Your task to perform on an android device: open app "Facebook Lite" (install if not already installed), go to login, and select forgot password Image 0: 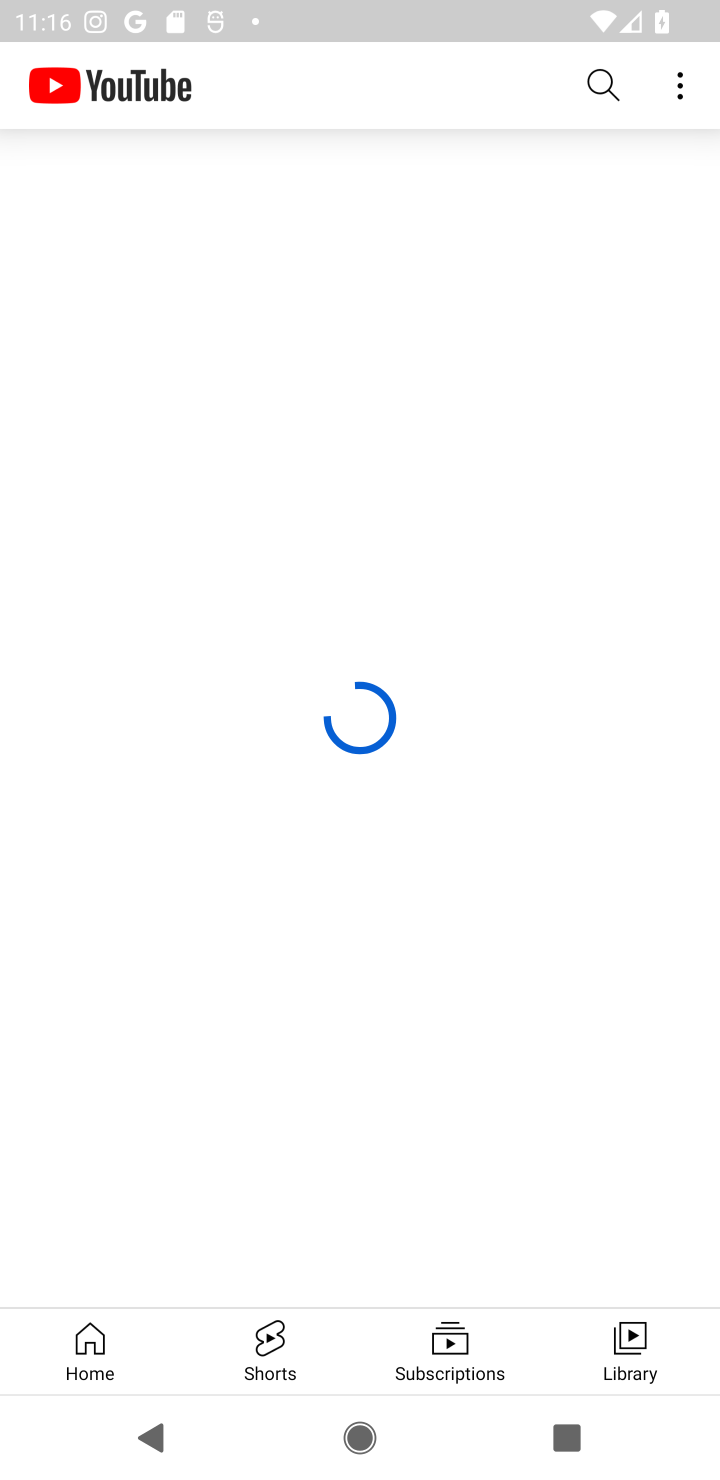
Step 0: press back button
Your task to perform on an android device: open app "Facebook Lite" (install if not already installed), go to login, and select forgot password Image 1: 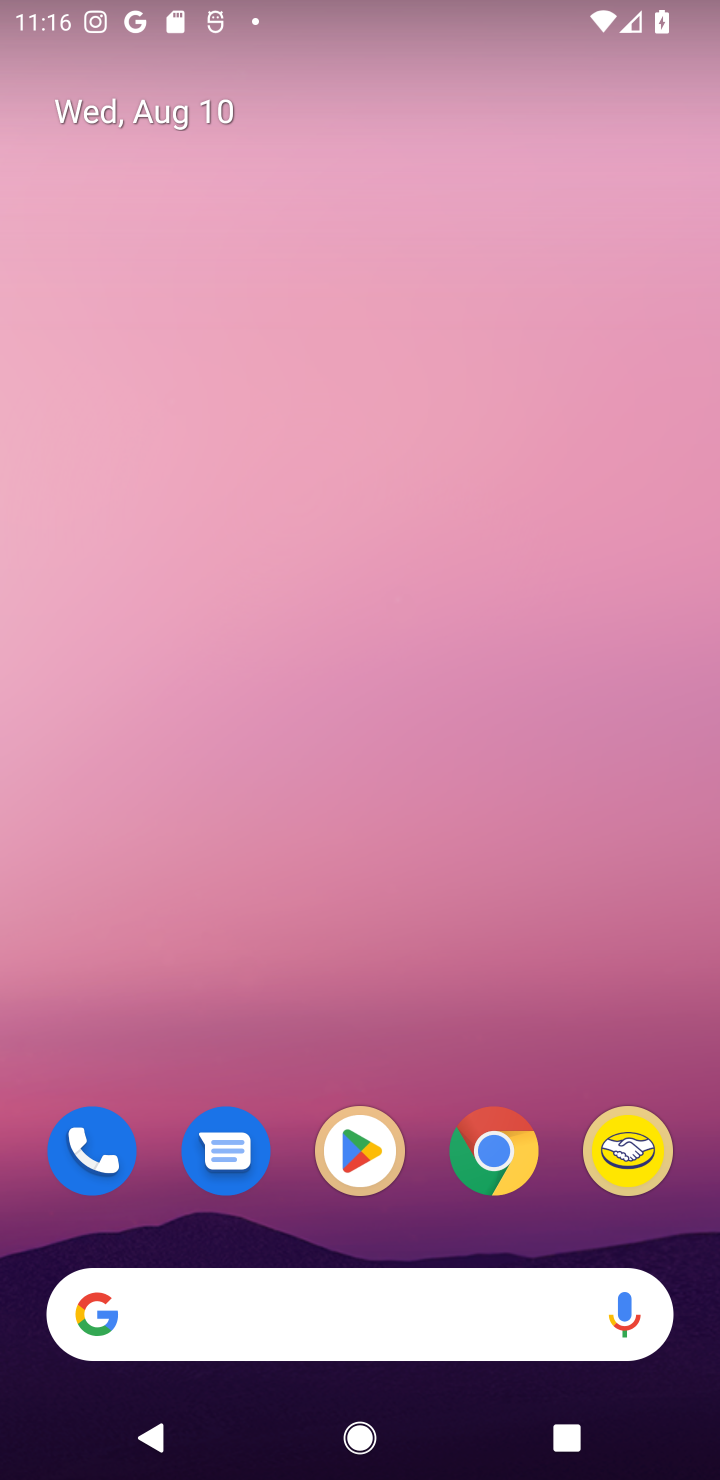
Step 1: click (351, 1145)
Your task to perform on an android device: open app "Facebook Lite" (install if not already installed), go to login, and select forgot password Image 2: 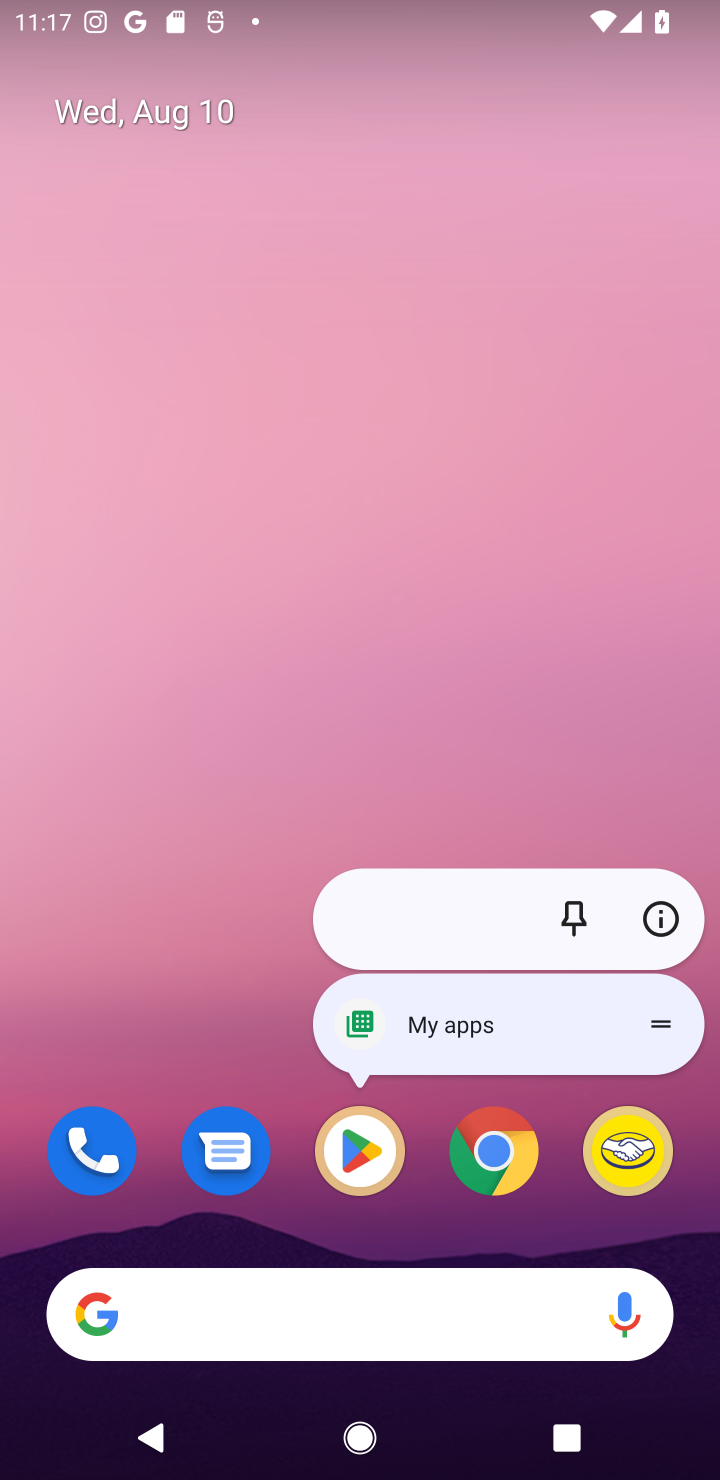
Step 2: click (352, 1157)
Your task to perform on an android device: open app "Facebook Lite" (install if not already installed), go to login, and select forgot password Image 3: 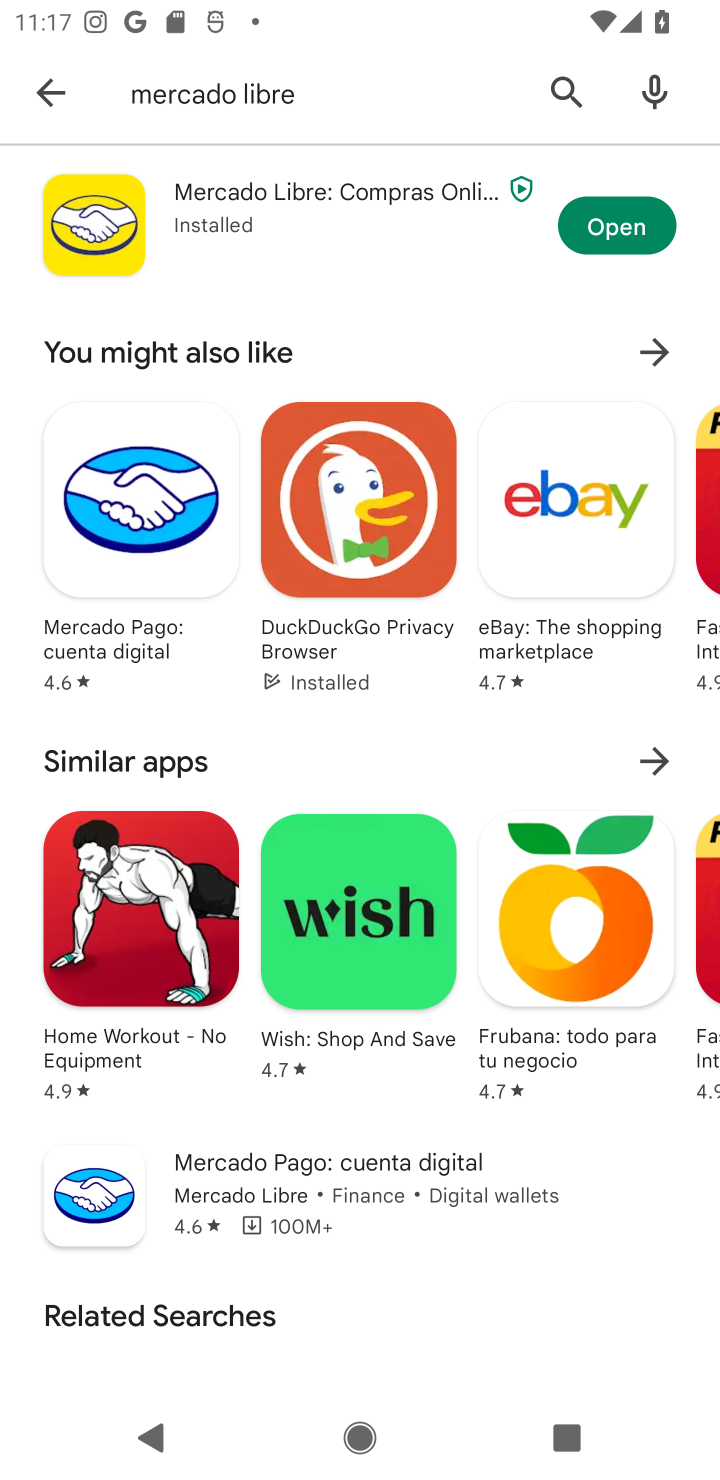
Step 3: click (566, 100)
Your task to perform on an android device: open app "Facebook Lite" (install if not already installed), go to login, and select forgot password Image 4: 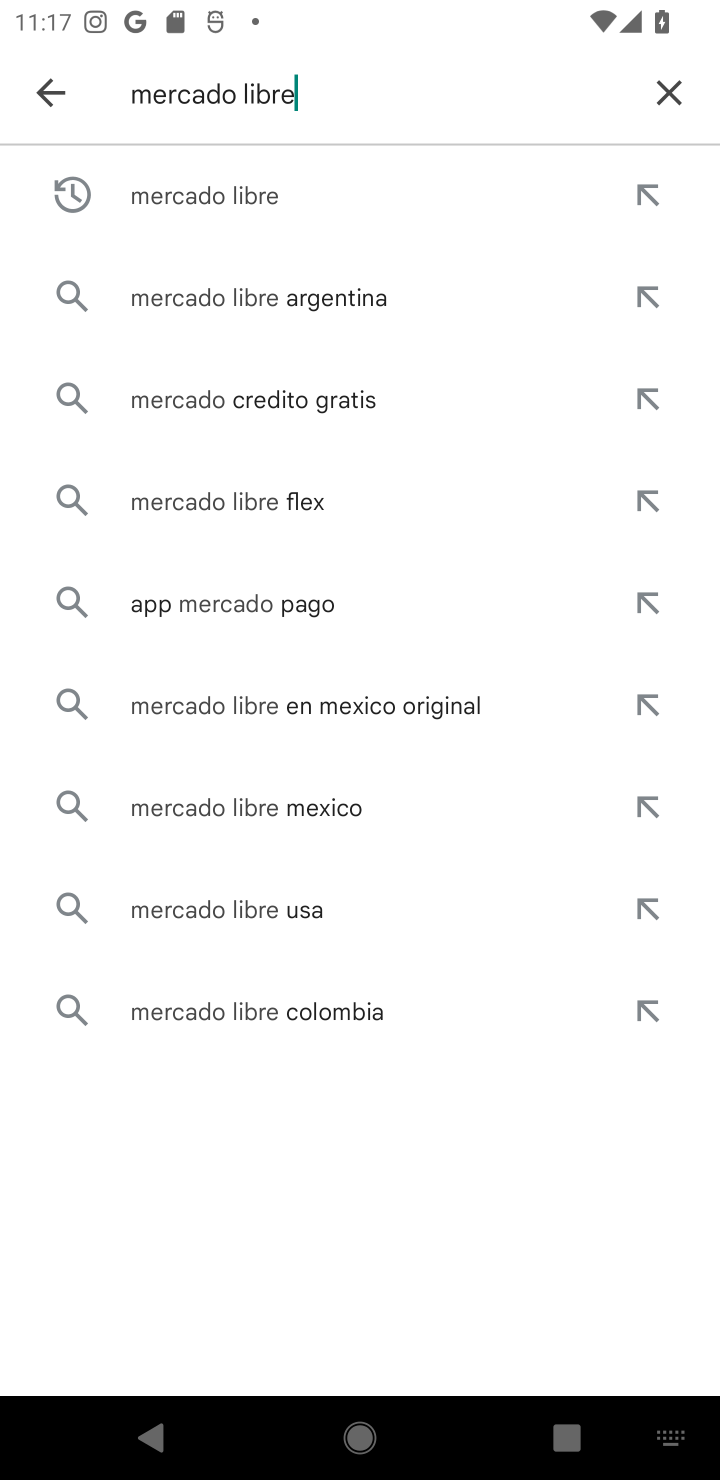
Step 4: click (671, 83)
Your task to perform on an android device: open app "Facebook Lite" (install if not already installed), go to login, and select forgot password Image 5: 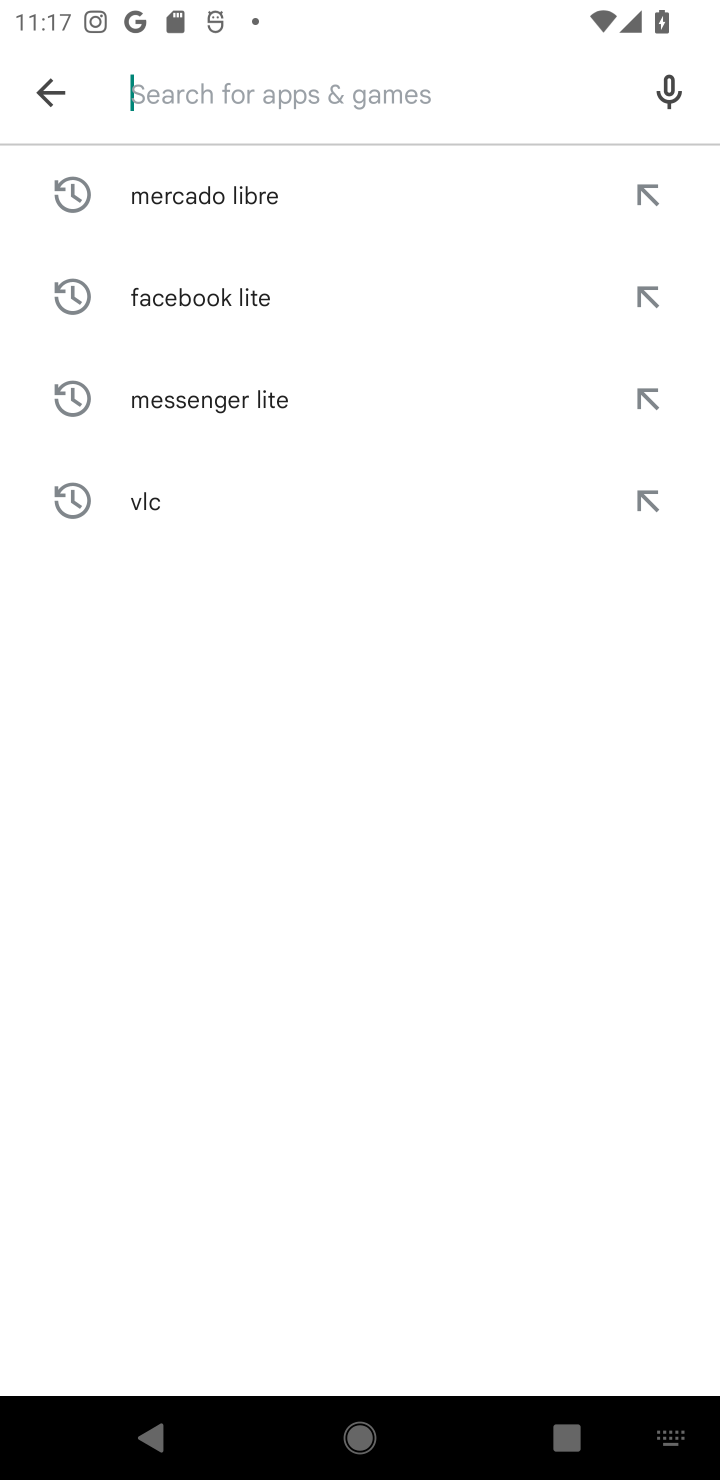
Step 5: click (253, 85)
Your task to perform on an android device: open app "Facebook Lite" (install if not already installed), go to login, and select forgot password Image 6: 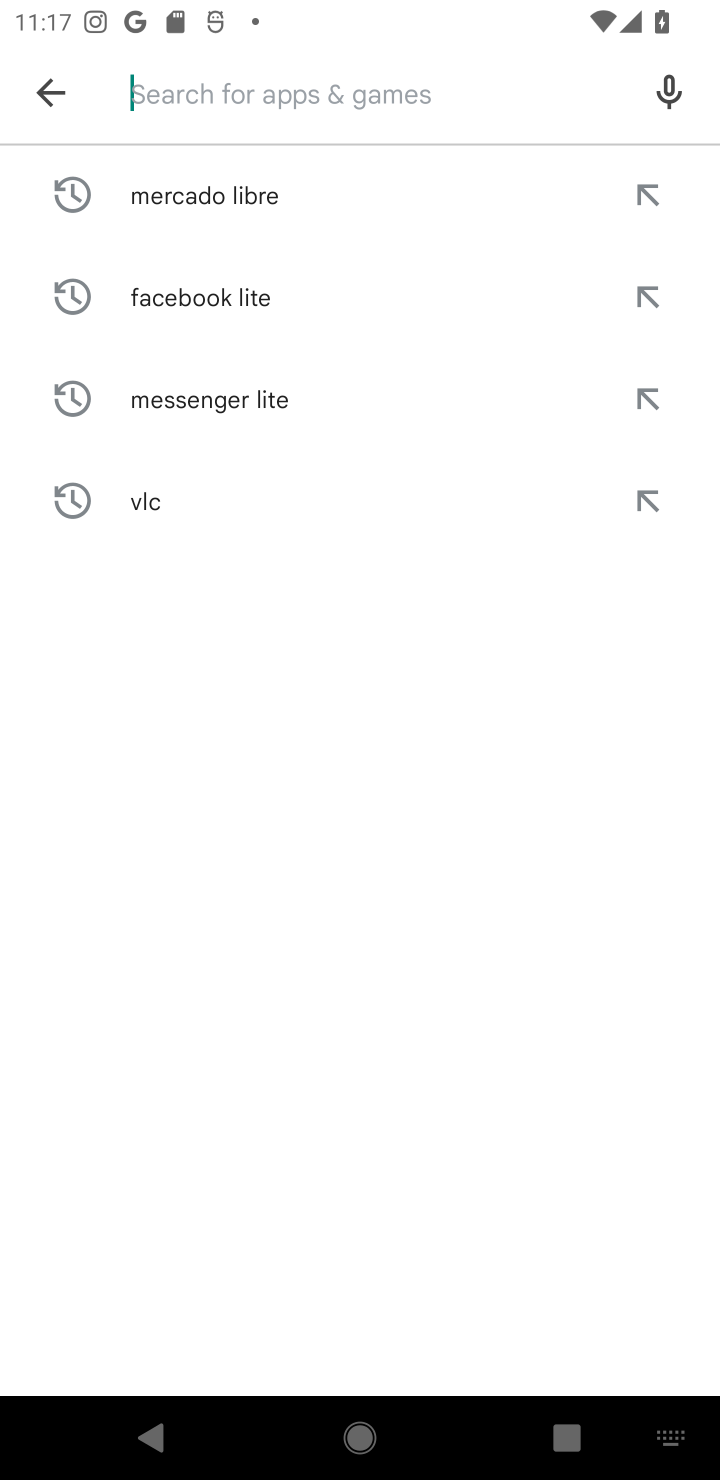
Step 6: type "Facebook Lite"
Your task to perform on an android device: open app "Facebook Lite" (install if not already installed), go to login, and select forgot password Image 7: 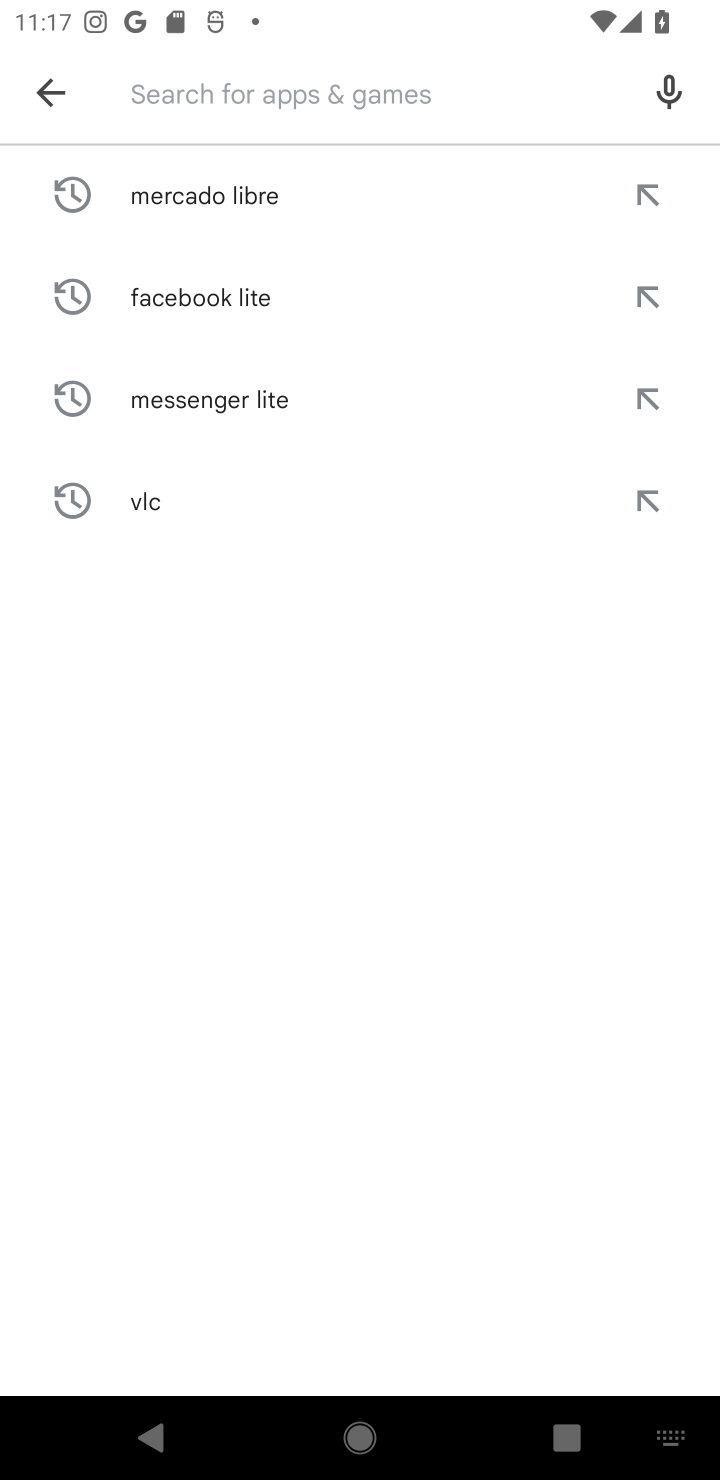
Step 7: click (308, 819)
Your task to perform on an android device: open app "Facebook Lite" (install if not already installed), go to login, and select forgot password Image 8: 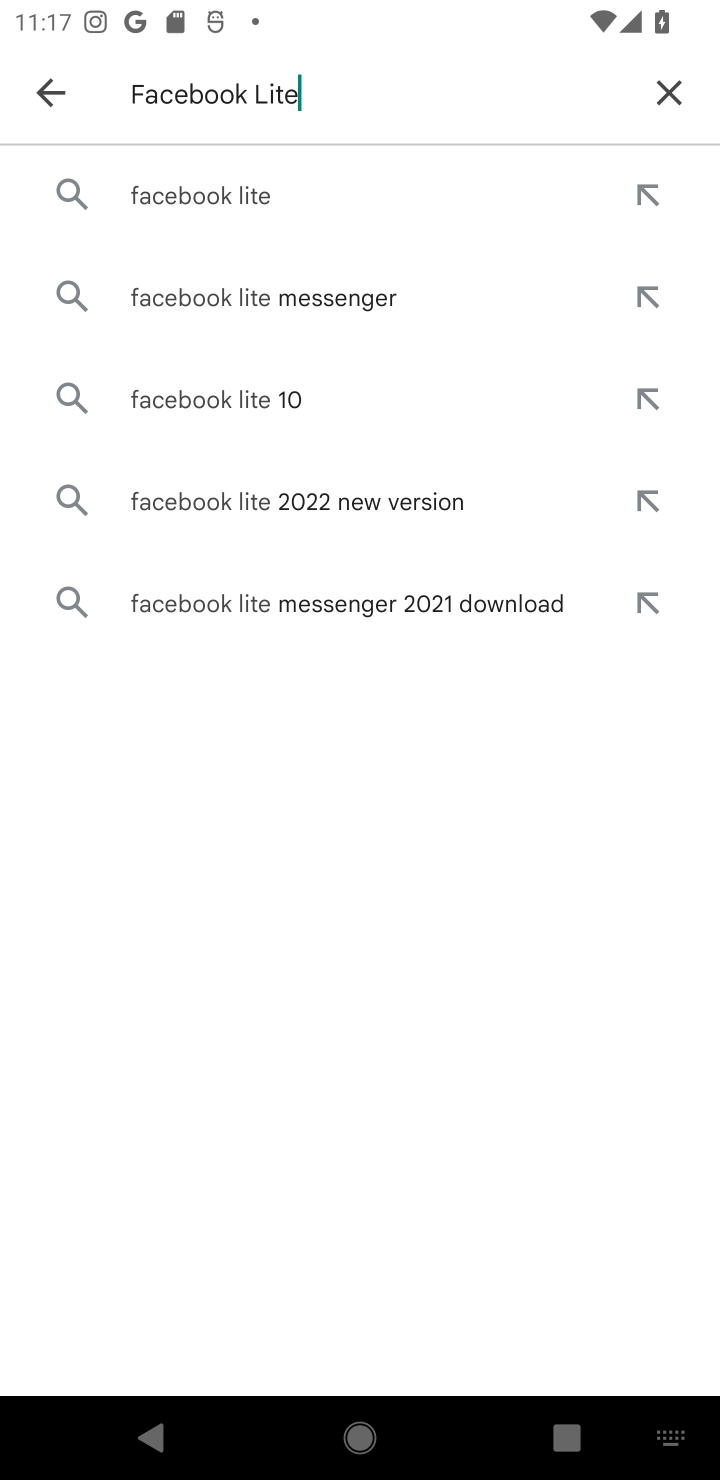
Step 8: click (267, 194)
Your task to perform on an android device: open app "Facebook Lite" (install if not already installed), go to login, and select forgot password Image 9: 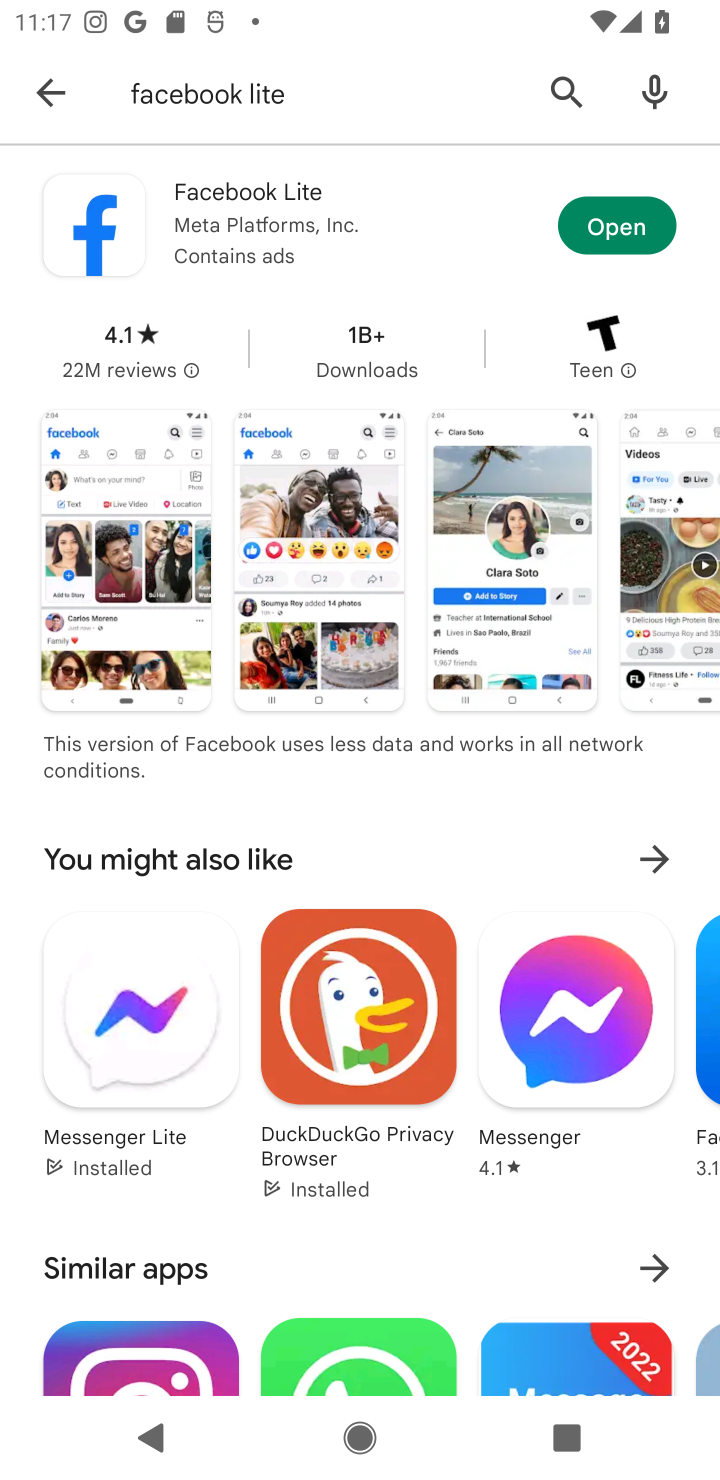
Step 9: click (604, 222)
Your task to perform on an android device: open app "Facebook Lite" (install if not already installed), go to login, and select forgot password Image 10: 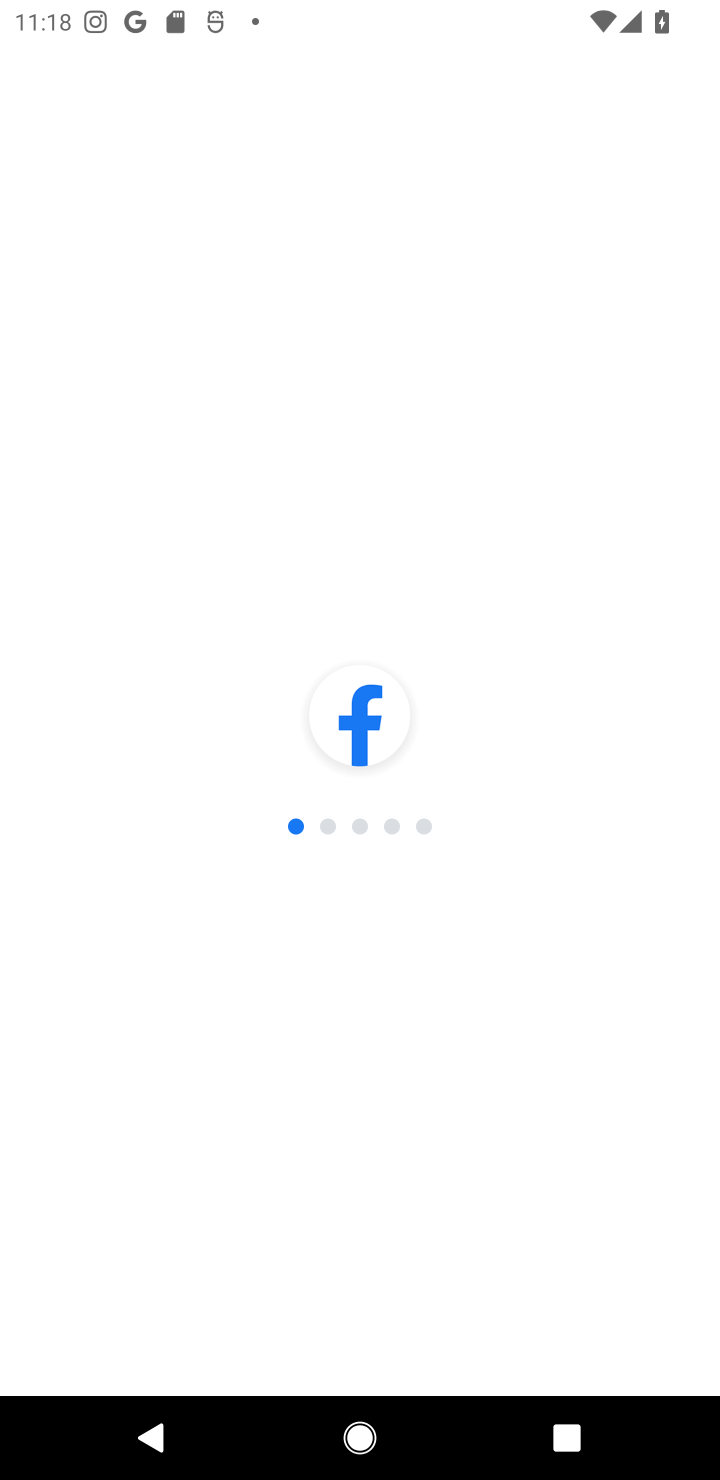
Step 10: task complete